Your task to perform on an android device: Do I have any events tomorrow? Image 0: 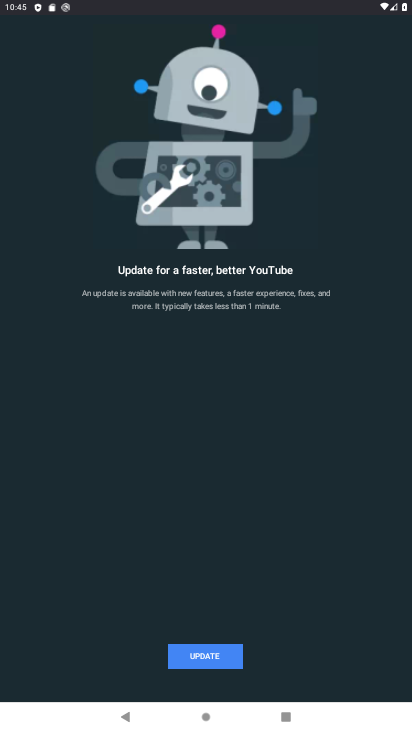
Step 0: press home button
Your task to perform on an android device: Do I have any events tomorrow? Image 1: 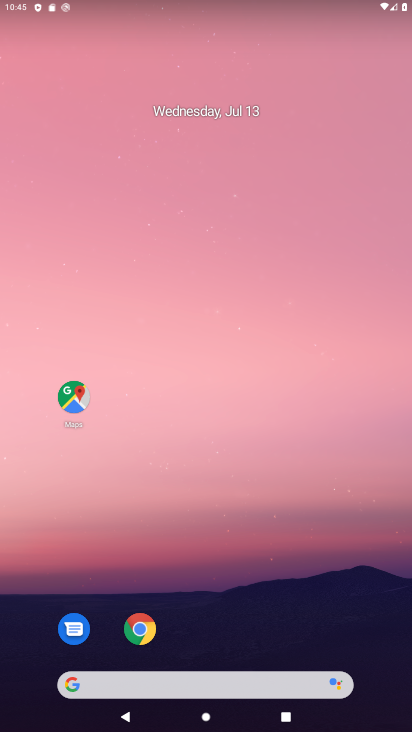
Step 1: drag from (225, 725) to (217, 273)
Your task to perform on an android device: Do I have any events tomorrow? Image 2: 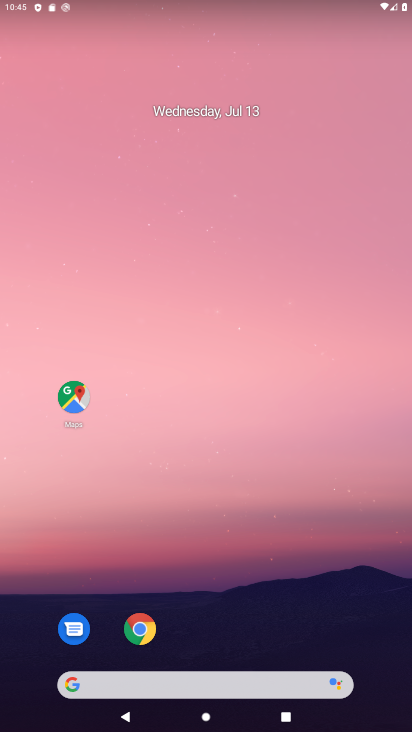
Step 2: drag from (247, 688) to (246, 167)
Your task to perform on an android device: Do I have any events tomorrow? Image 3: 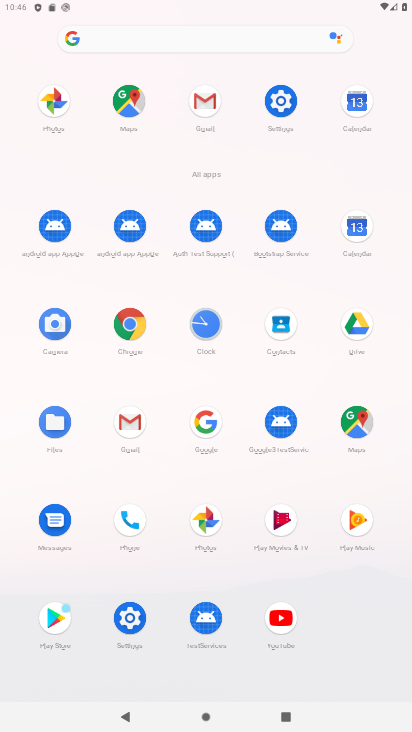
Step 3: click (353, 230)
Your task to perform on an android device: Do I have any events tomorrow? Image 4: 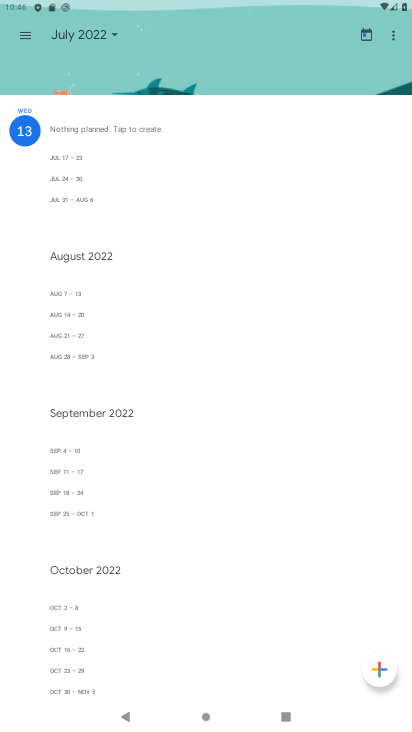
Step 4: click (115, 29)
Your task to perform on an android device: Do I have any events tomorrow? Image 5: 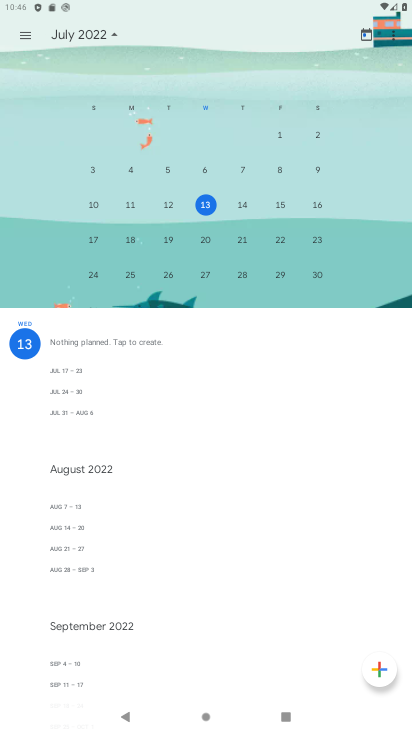
Step 5: click (241, 207)
Your task to perform on an android device: Do I have any events tomorrow? Image 6: 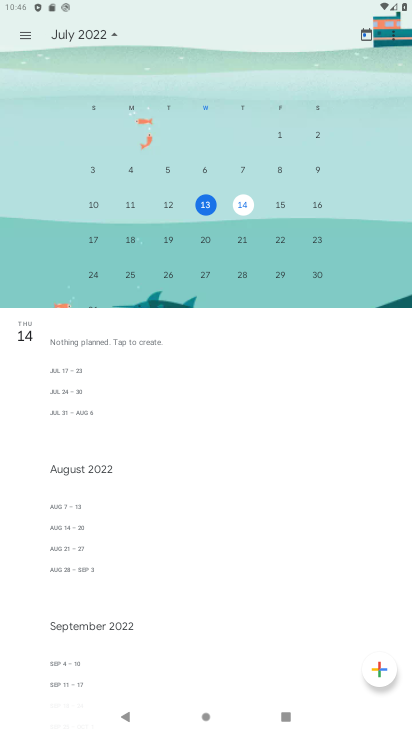
Step 6: click (243, 205)
Your task to perform on an android device: Do I have any events tomorrow? Image 7: 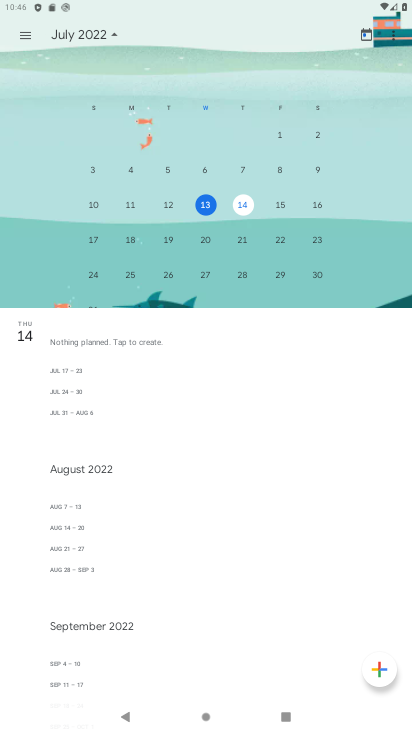
Step 7: click (22, 328)
Your task to perform on an android device: Do I have any events tomorrow? Image 8: 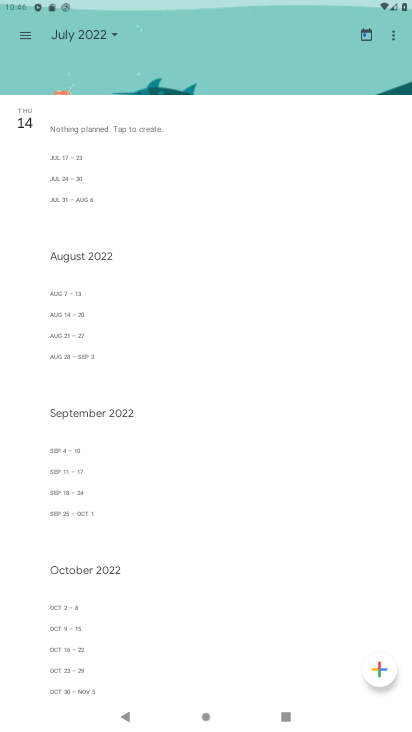
Step 8: task complete